Your task to perform on an android device: turn off airplane mode Image 0: 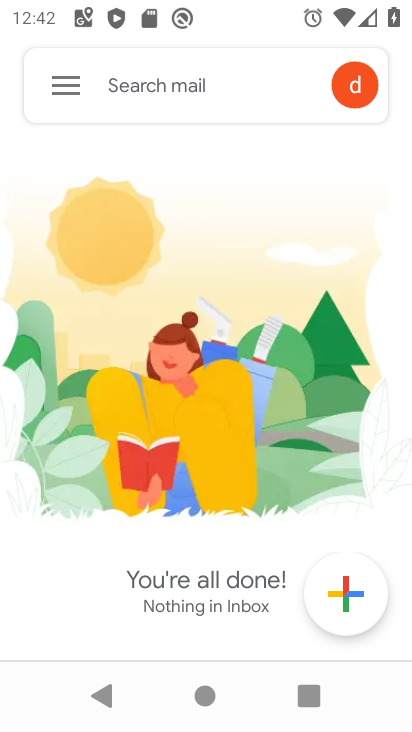
Step 0: press home button
Your task to perform on an android device: turn off airplane mode Image 1: 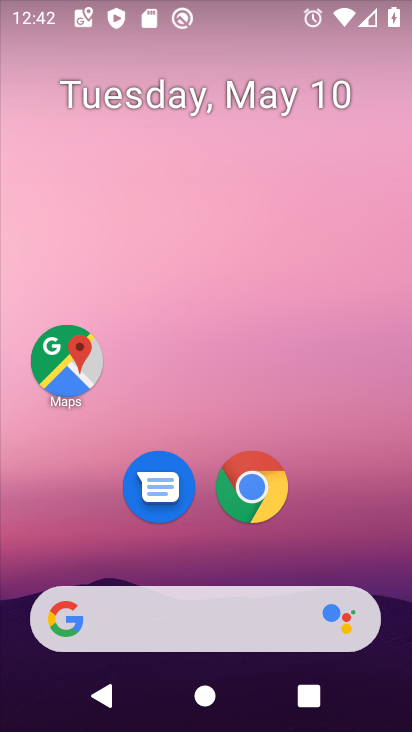
Step 1: drag from (363, 491) to (318, 163)
Your task to perform on an android device: turn off airplane mode Image 2: 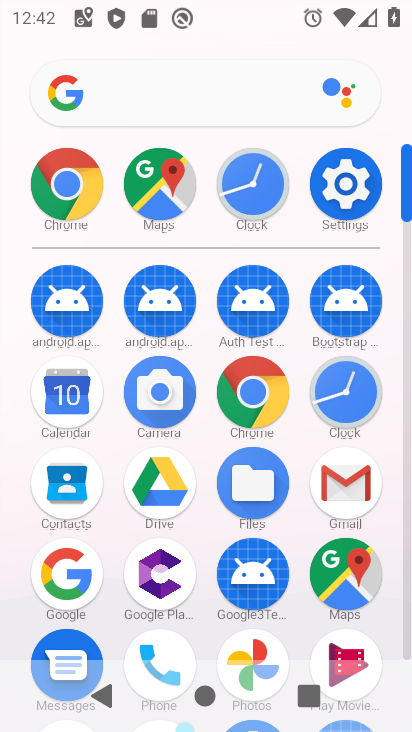
Step 2: click (343, 176)
Your task to perform on an android device: turn off airplane mode Image 3: 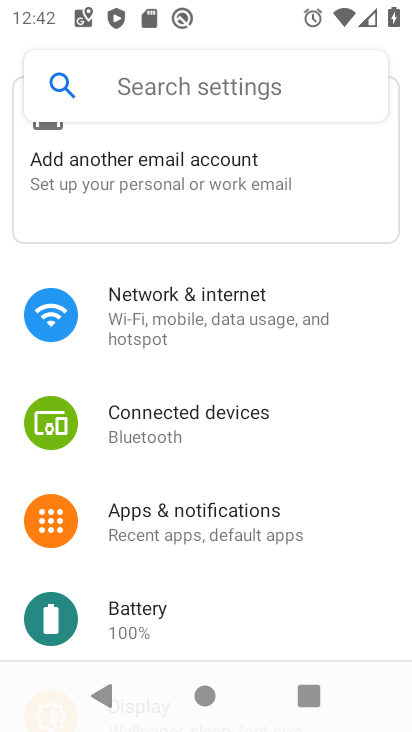
Step 3: click (296, 345)
Your task to perform on an android device: turn off airplane mode Image 4: 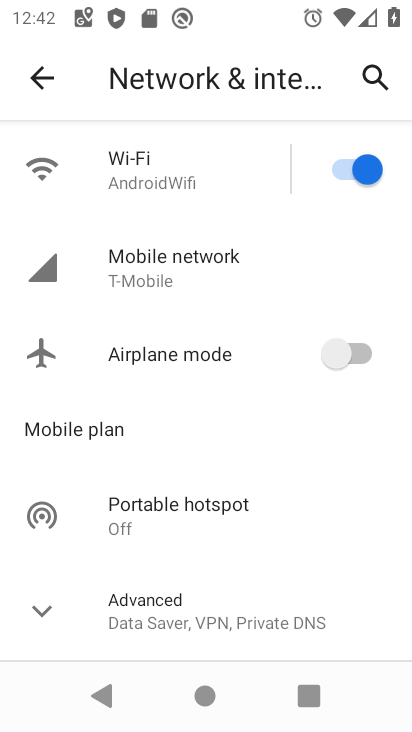
Step 4: click (343, 345)
Your task to perform on an android device: turn off airplane mode Image 5: 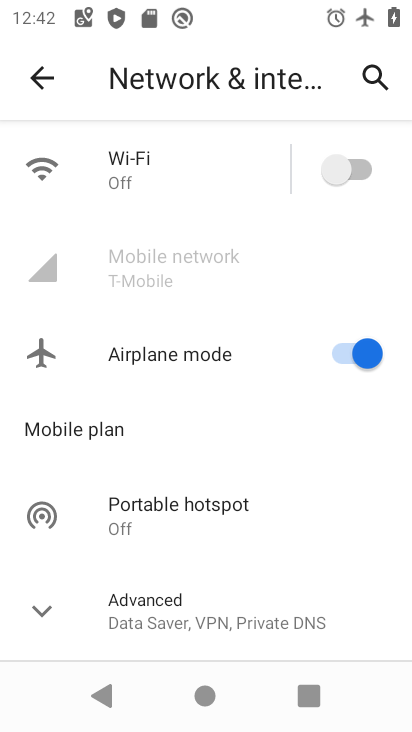
Step 5: click (363, 173)
Your task to perform on an android device: turn off airplane mode Image 6: 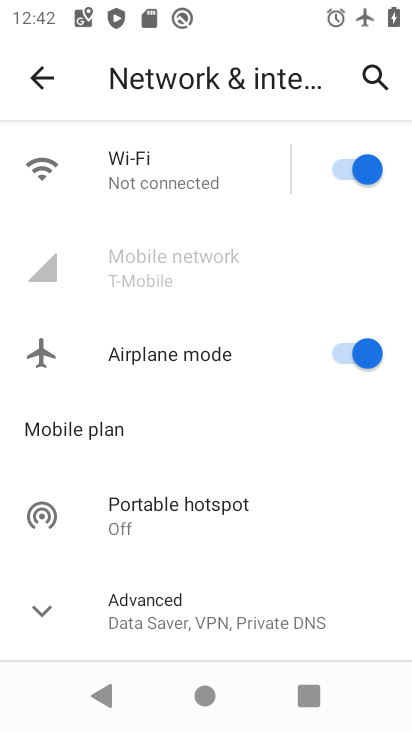
Step 6: task complete